Your task to perform on an android device: toggle location history Image 0: 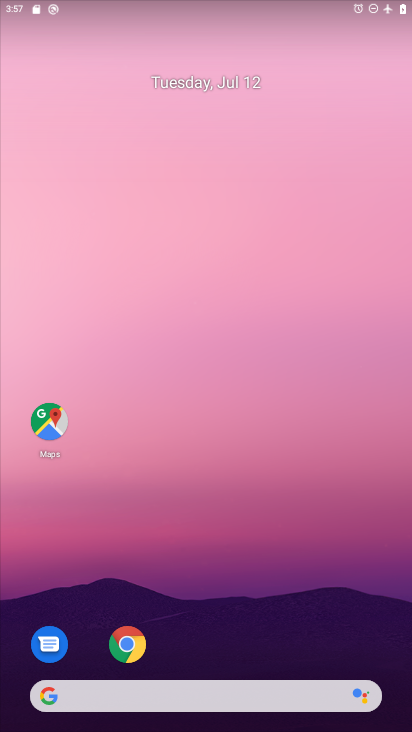
Step 0: drag from (303, 610) to (259, 140)
Your task to perform on an android device: toggle location history Image 1: 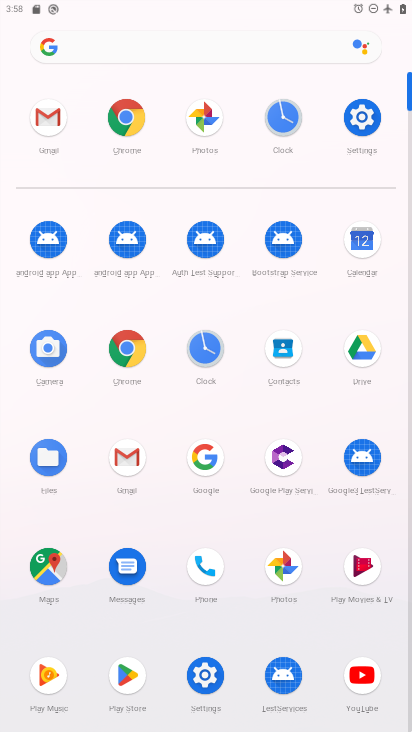
Step 1: click (361, 115)
Your task to perform on an android device: toggle location history Image 2: 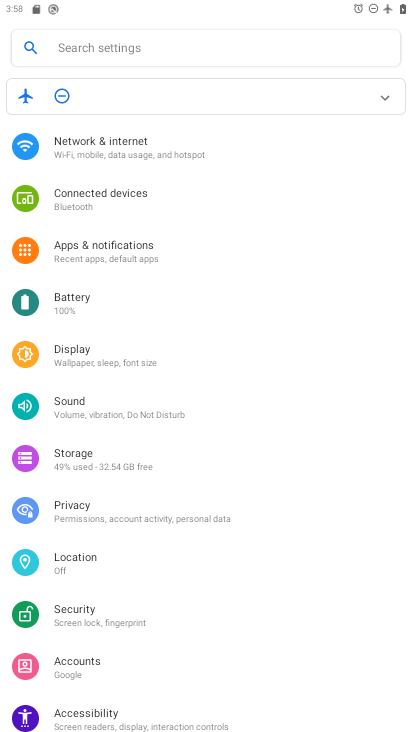
Step 2: click (91, 568)
Your task to perform on an android device: toggle location history Image 3: 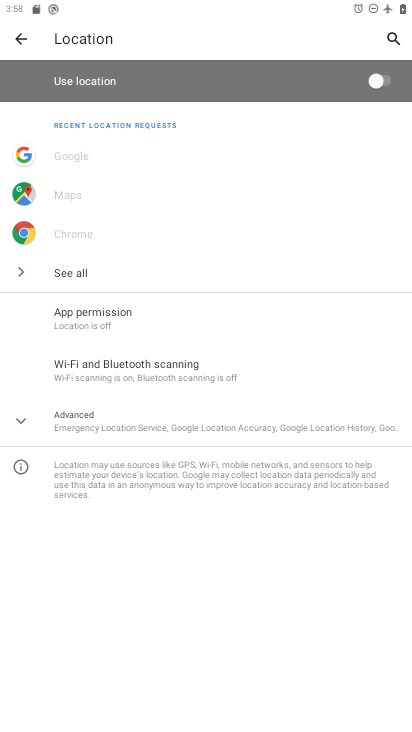
Step 3: click (98, 428)
Your task to perform on an android device: toggle location history Image 4: 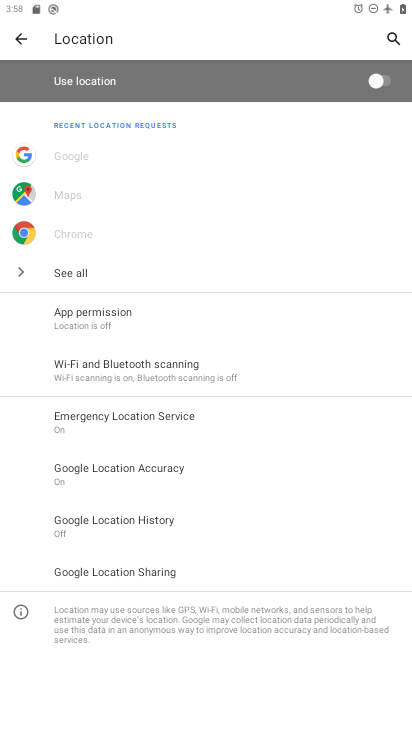
Step 4: click (157, 525)
Your task to perform on an android device: toggle location history Image 5: 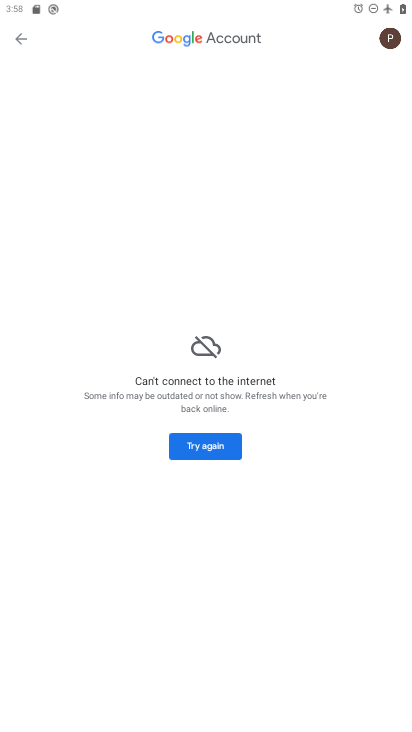
Step 5: task complete